Your task to perform on an android device: Add "beats solo 3" to the cart on ebay.com, then select checkout. Image 0: 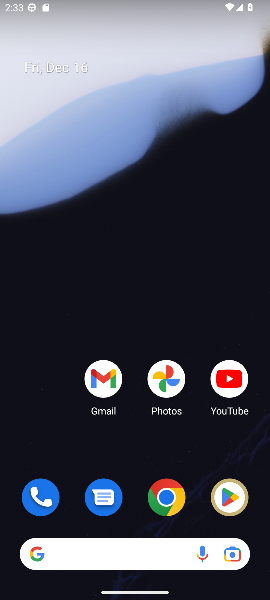
Step 0: click (170, 492)
Your task to perform on an android device: Add "beats solo 3" to the cart on ebay.com, then select checkout. Image 1: 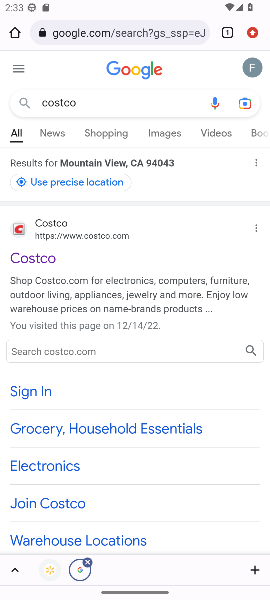
Step 1: click (144, 30)
Your task to perform on an android device: Add "beats solo 3" to the cart on ebay.com, then select checkout. Image 2: 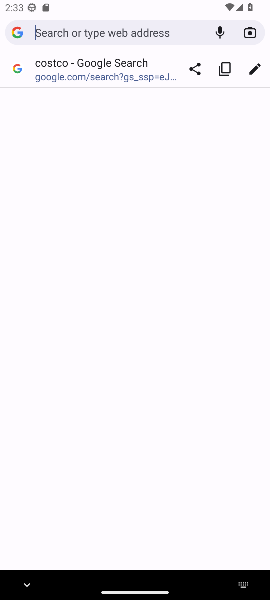
Step 2: type "ebay"
Your task to perform on an android device: Add "beats solo 3" to the cart on ebay.com, then select checkout. Image 3: 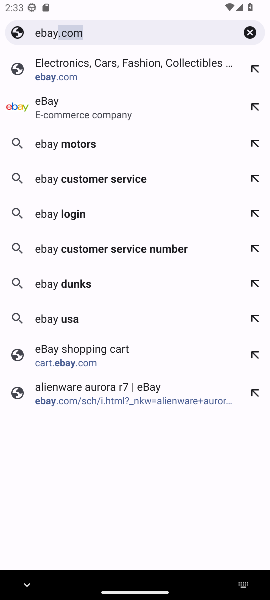
Step 3: click (66, 76)
Your task to perform on an android device: Add "beats solo 3" to the cart on ebay.com, then select checkout. Image 4: 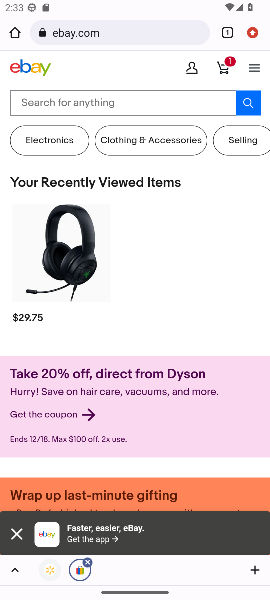
Step 4: click (125, 102)
Your task to perform on an android device: Add "beats solo 3" to the cart on ebay.com, then select checkout. Image 5: 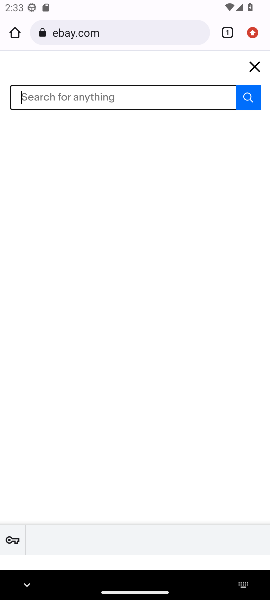
Step 5: type "beats solo 3"
Your task to perform on an android device: Add "beats solo 3" to the cart on ebay.com, then select checkout. Image 6: 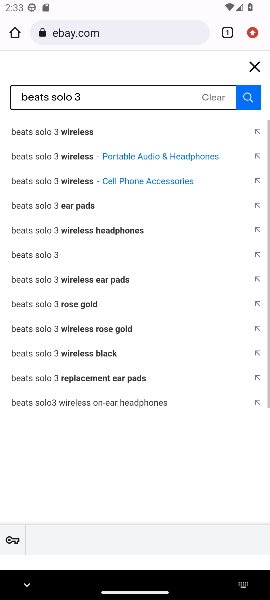
Step 6: click (40, 131)
Your task to perform on an android device: Add "beats solo 3" to the cart on ebay.com, then select checkout. Image 7: 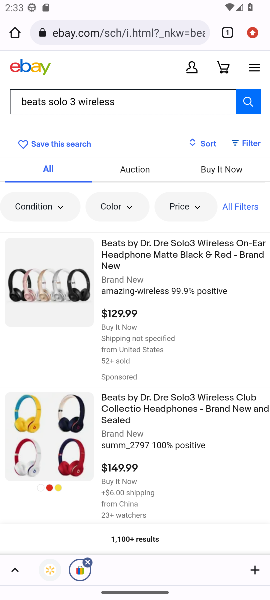
Step 7: click (215, 283)
Your task to perform on an android device: Add "beats solo 3" to the cart on ebay.com, then select checkout. Image 8: 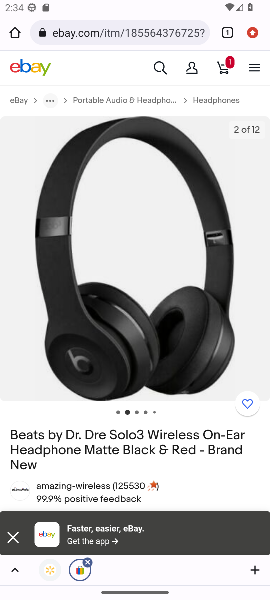
Step 8: drag from (178, 449) to (142, 13)
Your task to perform on an android device: Add "beats solo 3" to the cart on ebay.com, then select checkout. Image 9: 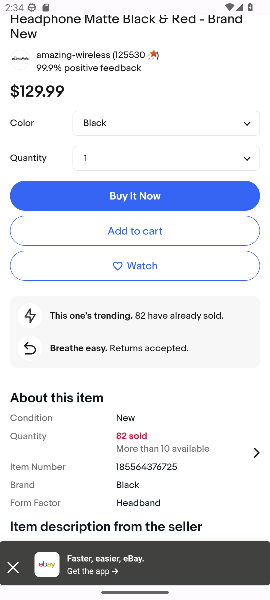
Step 9: click (140, 226)
Your task to perform on an android device: Add "beats solo 3" to the cart on ebay.com, then select checkout. Image 10: 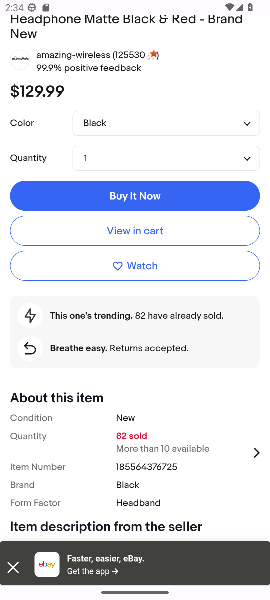
Step 10: task complete